Your task to perform on an android device: Go to accessibility settings Image 0: 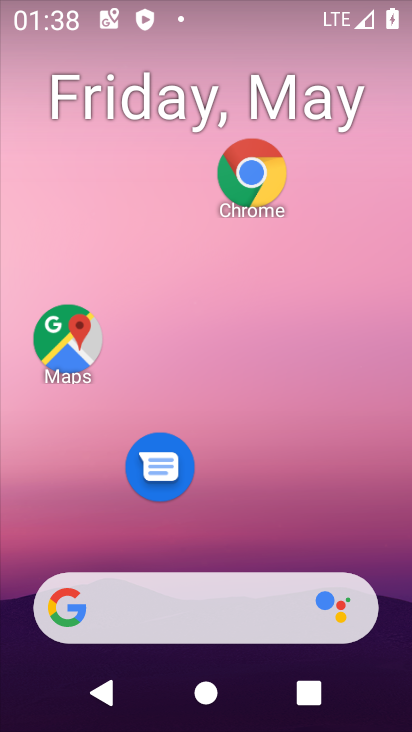
Step 0: drag from (294, 663) to (308, 249)
Your task to perform on an android device: Go to accessibility settings Image 1: 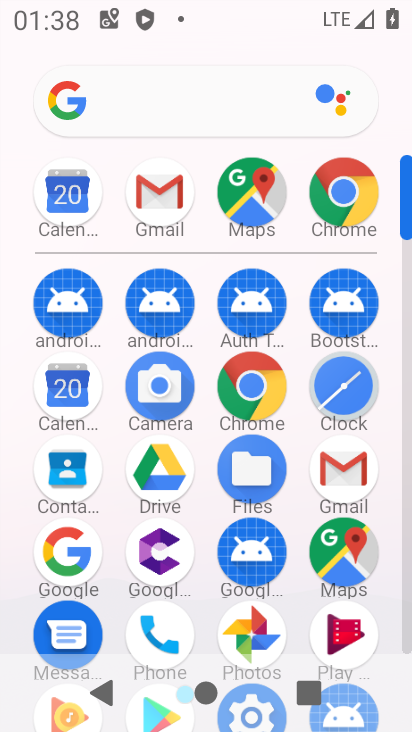
Step 1: drag from (208, 602) to (222, 481)
Your task to perform on an android device: Go to accessibility settings Image 2: 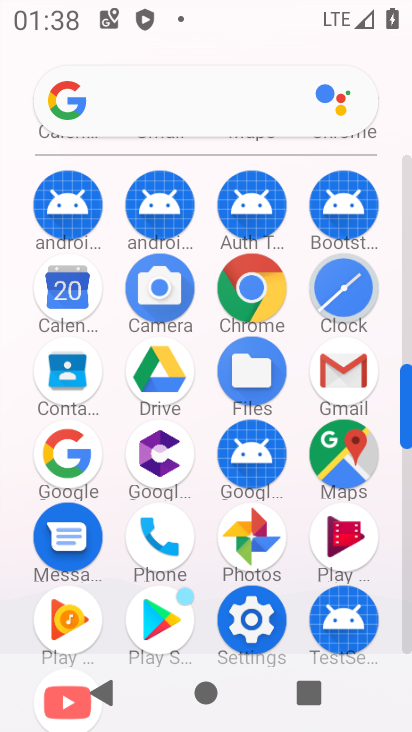
Step 2: click (250, 604)
Your task to perform on an android device: Go to accessibility settings Image 3: 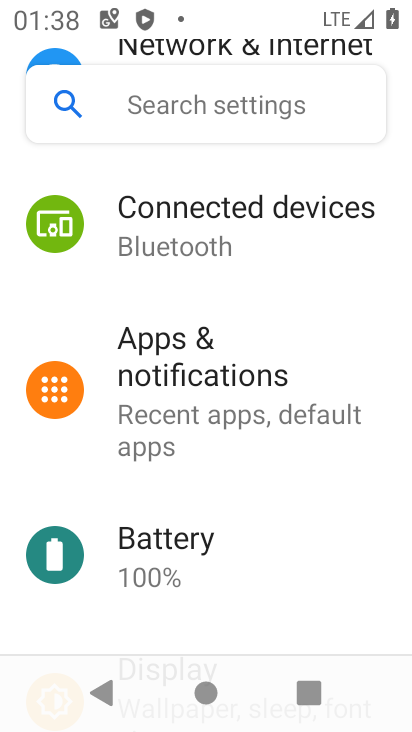
Step 3: click (146, 116)
Your task to perform on an android device: Go to accessibility settings Image 4: 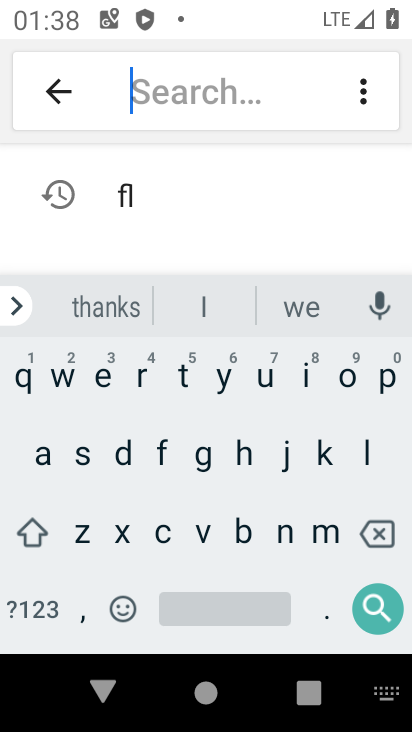
Step 4: click (40, 452)
Your task to perform on an android device: Go to accessibility settings Image 5: 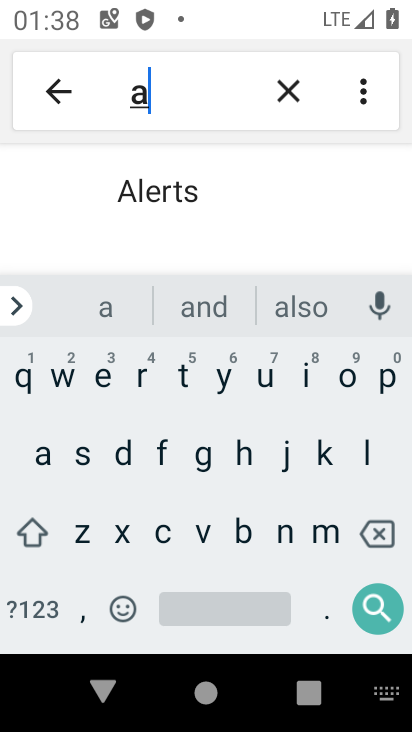
Step 5: click (150, 524)
Your task to perform on an android device: Go to accessibility settings Image 6: 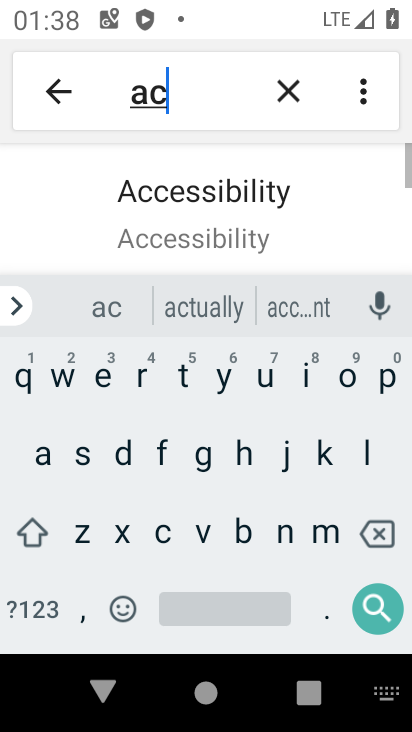
Step 6: click (174, 232)
Your task to perform on an android device: Go to accessibility settings Image 7: 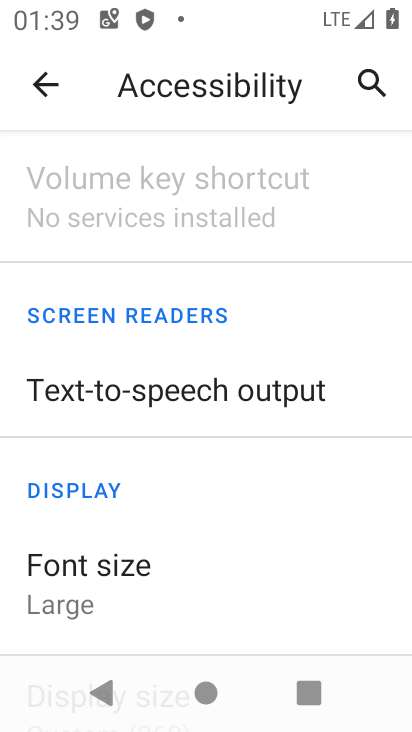
Step 7: task complete